Your task to perform on an android device: change the clock display to show seconds Image 0: 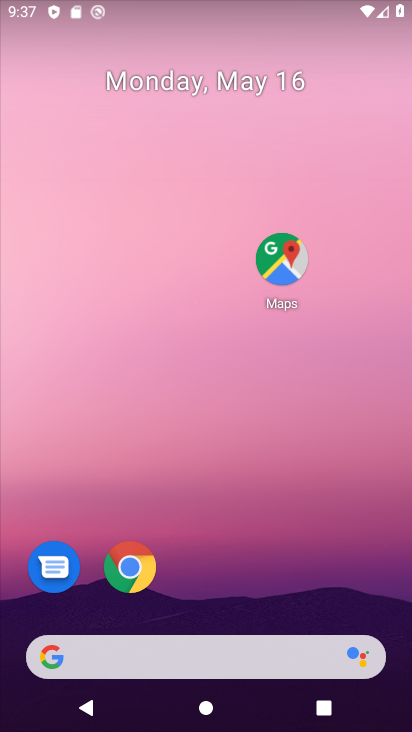
Step 0: drag from (286, 585) to (196, 79)
Your task to perform on an android device: change the clock display to show seconds Image 1: 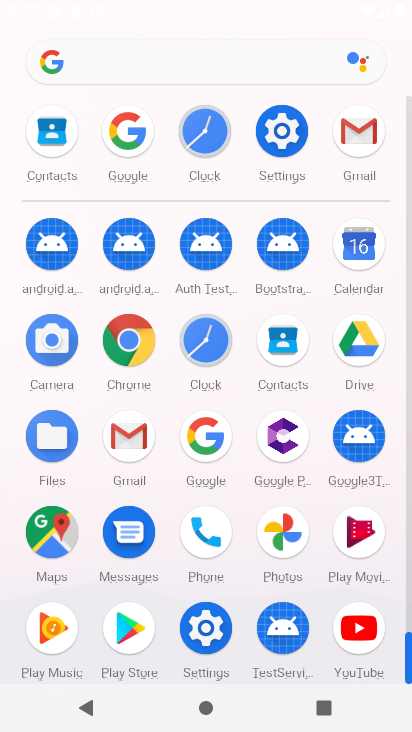
Step 1: click (210, 335)
Your task to perform on an android device: change the clock display to show seconds Image 2: 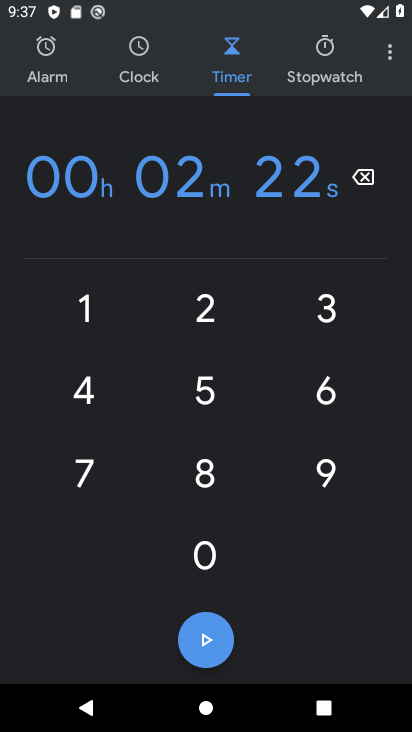
Step 2: click (385, 49)
Your task to perform on an android device: change the clock display to show seconds Image 3: 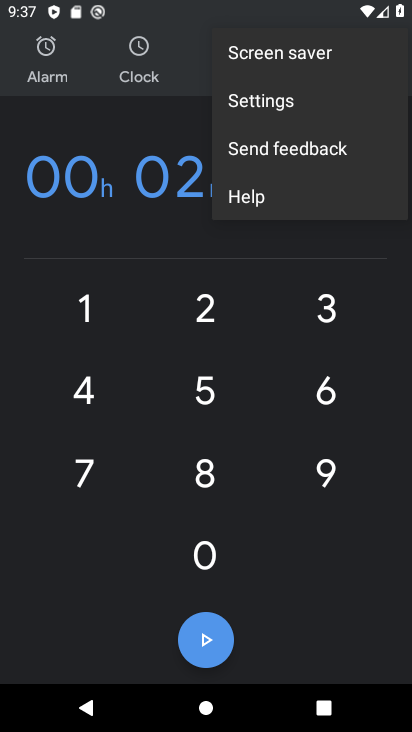
Step 3: click (292, 105)
Your task to perform on an android device: change the clock display to show seconds Image 4: 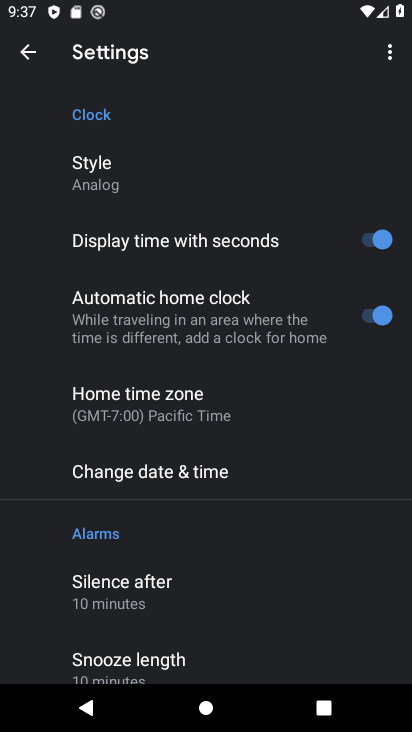
Step 4: task complete